Your task to perform on an android device: all mails in gmail Image 0: 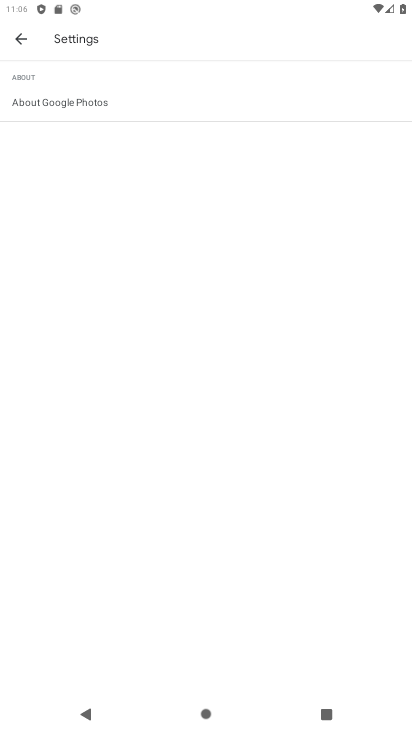
Step 0: press home button
Your task to perform on an android device: all mails in gmail Image 1: 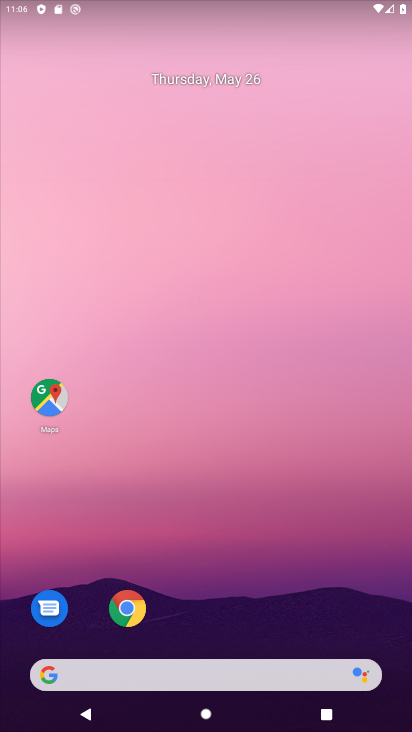
Step 1: drag from (212, 597) to (136, 141)
Your task to perform on an android device: all mails in gmail Image 2: 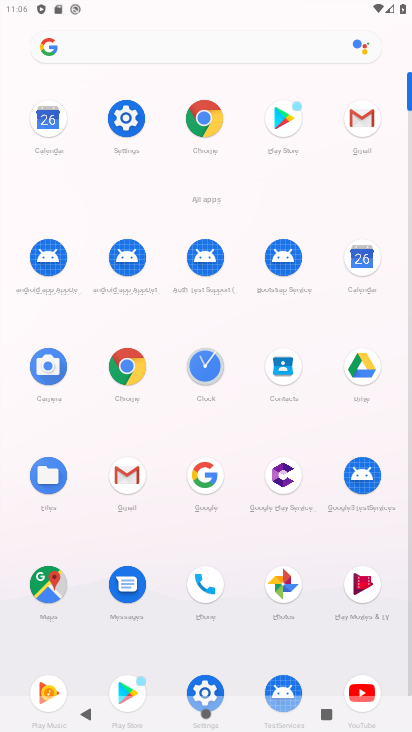
Step 2: click (132, 477)
Your task to perform on an android device: all mails in gmail Image 3: 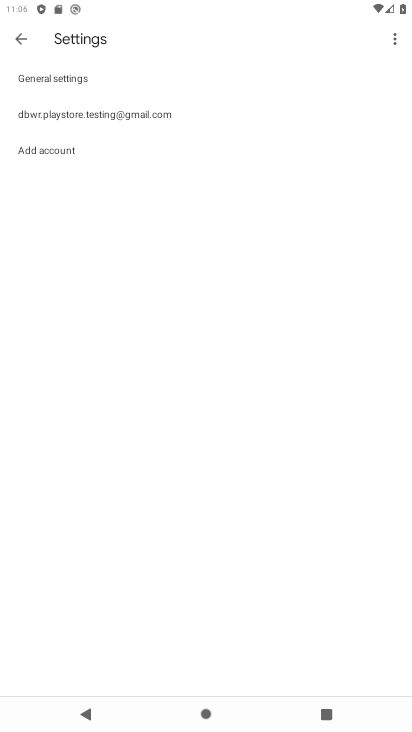
Step 3: click (18, 44)
Your task to perform on an android device: all mails in gmail Image 4: 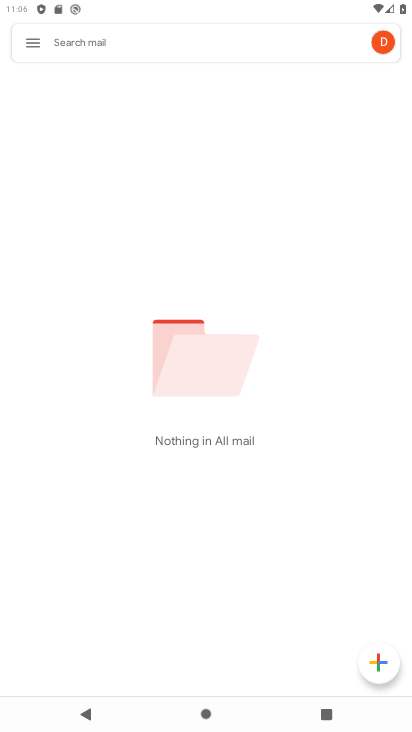
Step 4: click (34, 51)
Your task to perform on an android device: all mails in gmail Image 5: 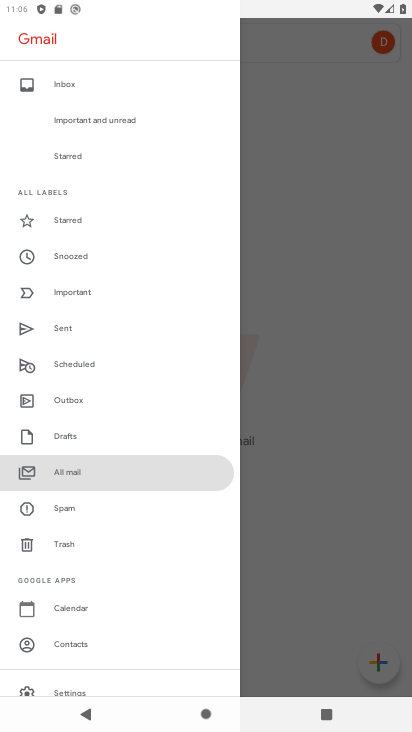
Step 5: click (137, 477)
Your task to perform on an android device: all mails in gmail Image 6: 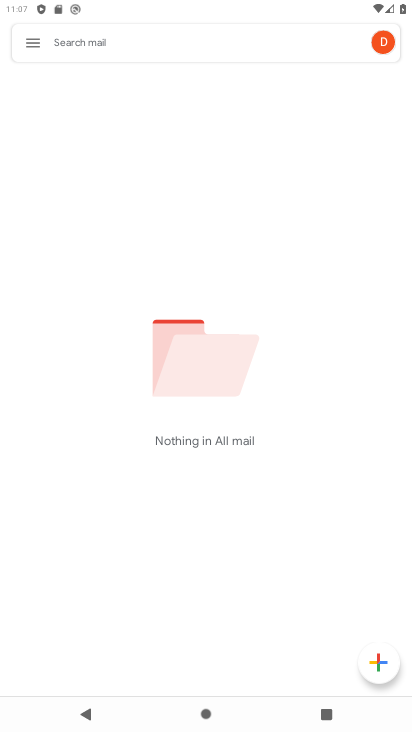
Step 6: task complete